Your task to perform on an android device: Open Google Maps and go to "Timeline" Image 0: 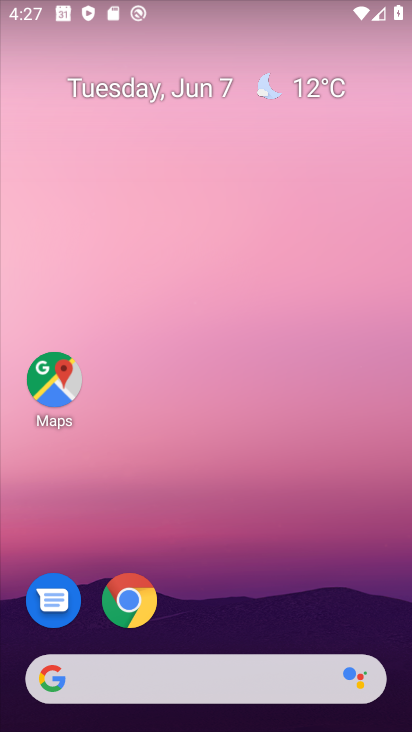
Step 0: click (77, 372)
Your task to perform on an android device: Open Google Maps and go to "Timeline" Image 1: 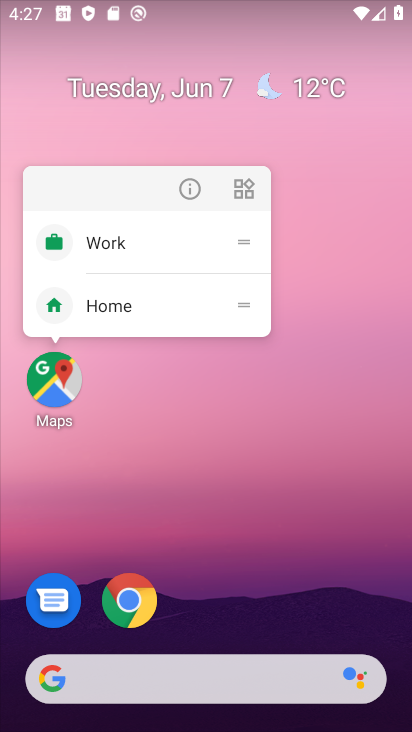
Step 1: click (40, 390)
Your task to perform on an android device: Open Google Maps and go to "Timeline" Image 2: 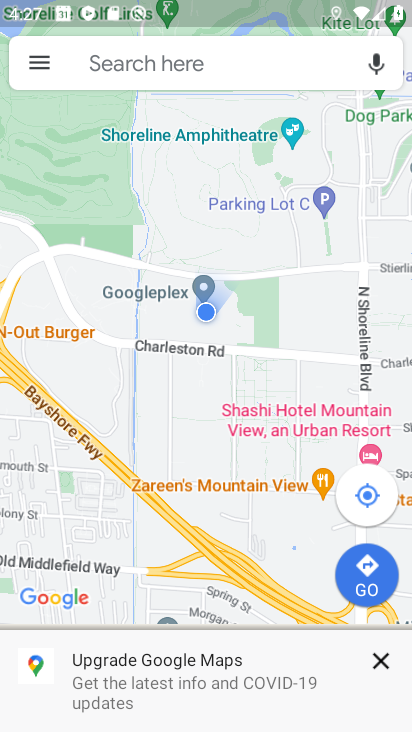
Step 2: click (34, 55)
Your task to perform on an android device: Open Google Maps and go to "Timeline" Image 3: 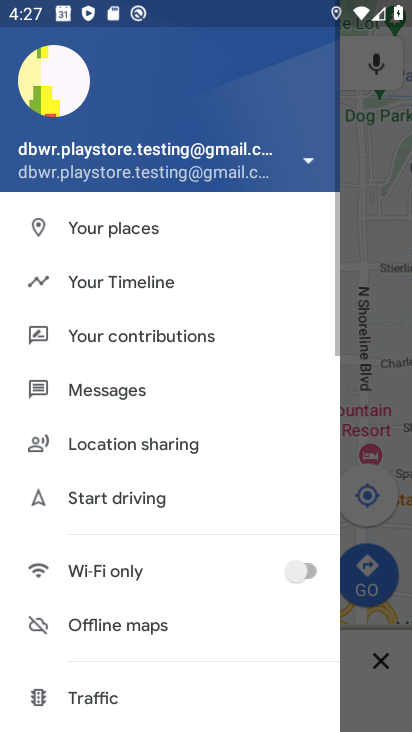
Step 3: click (111, 291)
Your task to perform on an android device: Open Google Maps and go to "Timeline" Image 4: 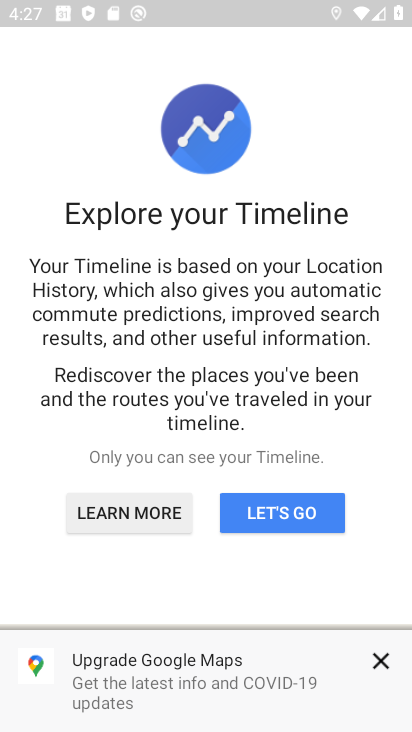
Step 4: click (293, 502)
Your task to perform on an android device: Open Google Maps and go to "Timeline" Image 5: 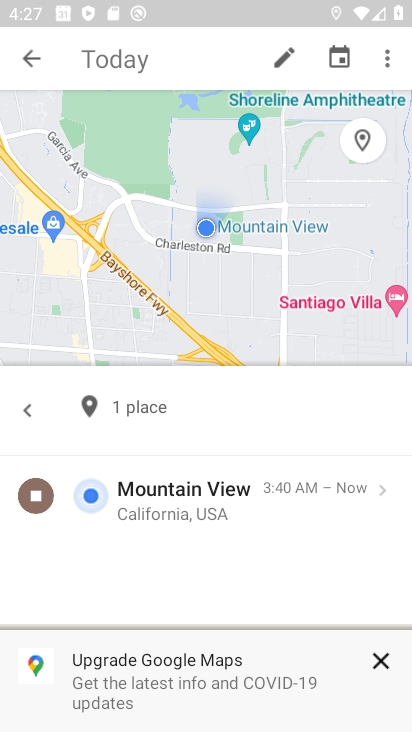
Step 5: task complete